Your task to perform on an android device: turn on improve location accuracy Image 0: 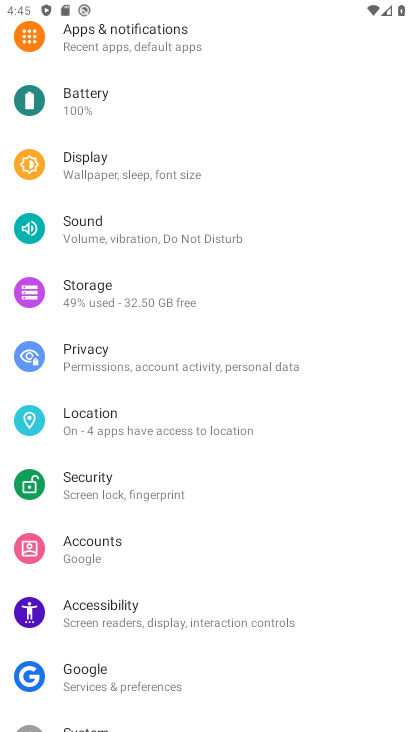
Step 0: press home button
Your task to perform on an android device: turn on improve location accuracy Image 1: 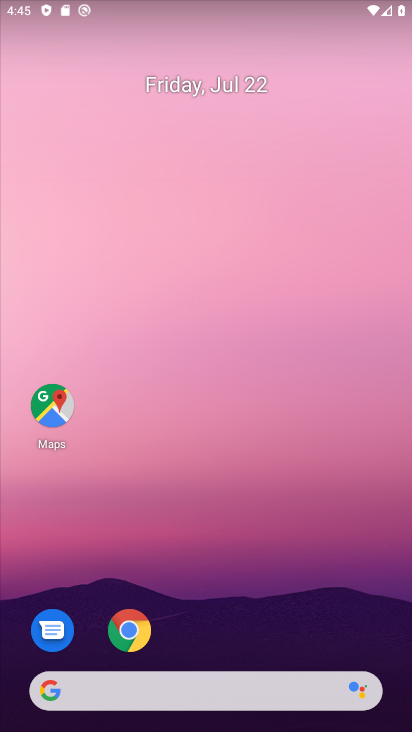
Step 1: drag from (198, 599) to (246, 69)
Your task to perform on an android device: turn on improve location accuracy Image 2: 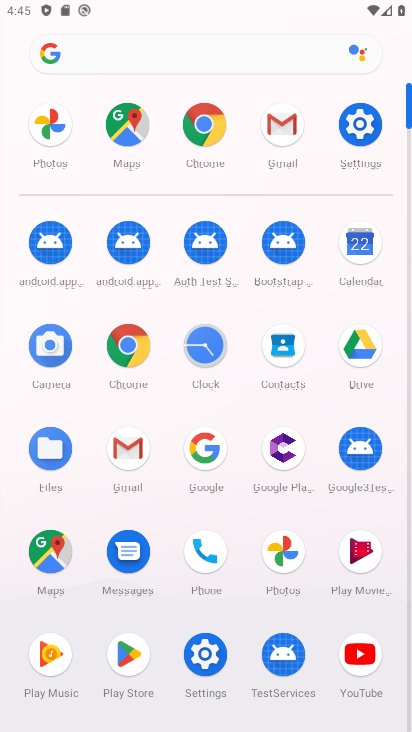
Step 2: click (353, 128)
Your task to perform on an android device: turn on improve location accuracy Image 3: 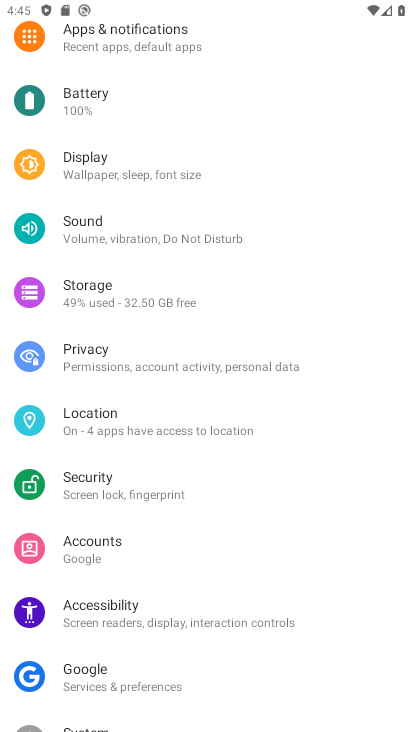
Step 3: click (99, 419)
Your task to perform on an android device: turn on improve location accuracy Image 4: 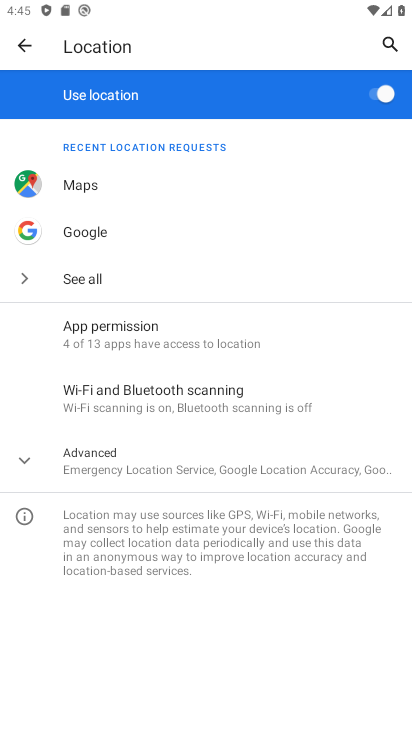
Step 4: click (67, 460)
Your task to perform on an android device: turn on improve location accuracy Image 5: 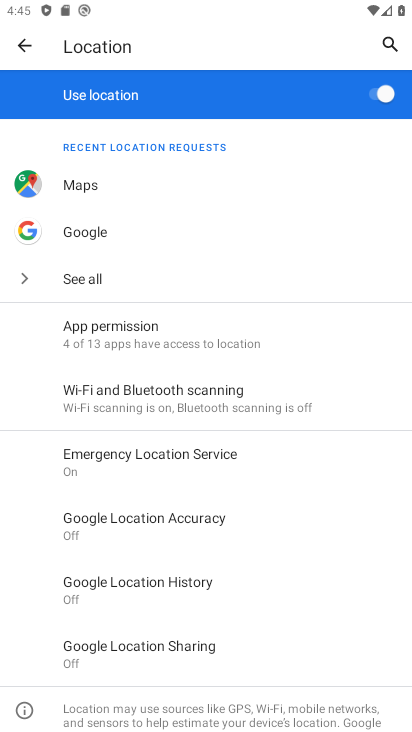
Step 5: click (126, 526)
Your task to perform on an android device: turn on improve location accuracy Image 6: 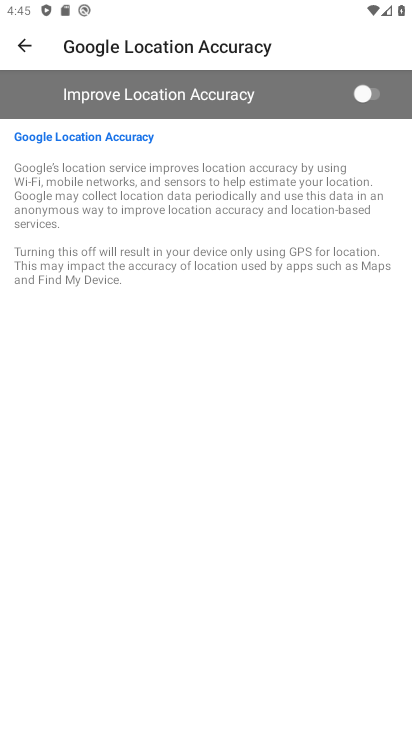
Step 6: click (370, 93)
Your task to perform on an android device: turn on improve location accuracy Image 7: 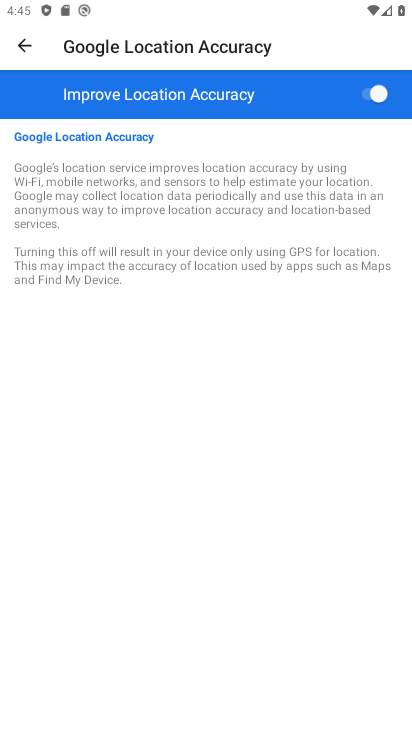
Step 7: task complete